Your task to perform on an android device: toggle sleep mode Image 0: 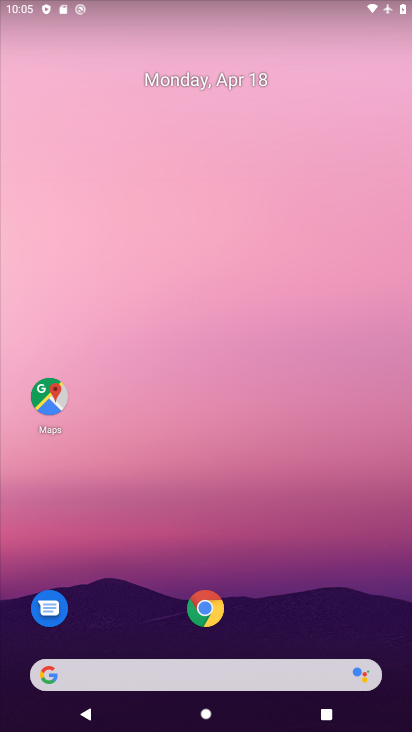
Step 0: drag from (260, 617) to (260, 154)
Your task to perform on an android device: toggle sleep mode Image 1: 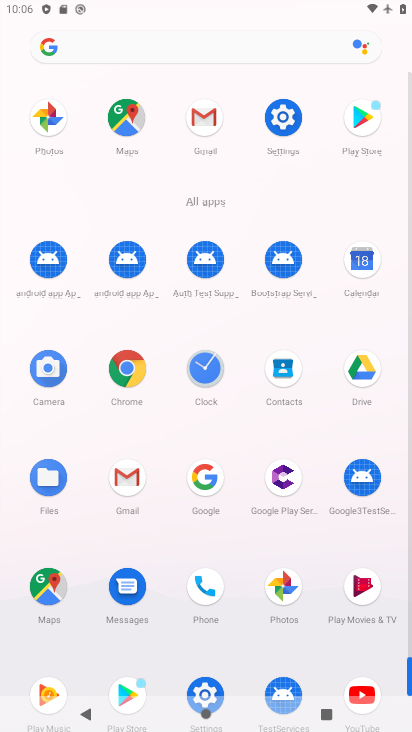
Step 1: click (298, 121)
Your task to perform on an android device: toggle sleep mode Image 2: 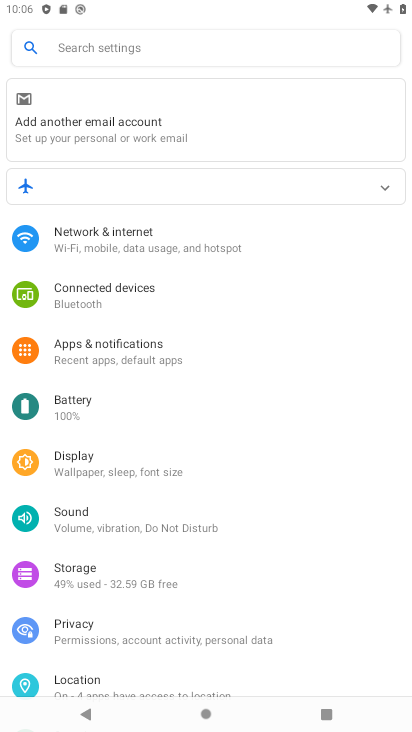
Step 2: click (131, 474)
Your task to perform on an android device: toggle sleep mode Image 3: 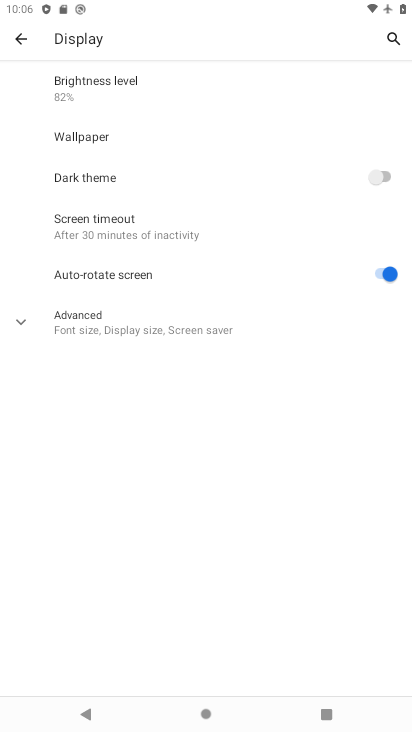
Step 3: click (28, 325)
Your task to perform on an android device: toggle sleep mode Image 4: 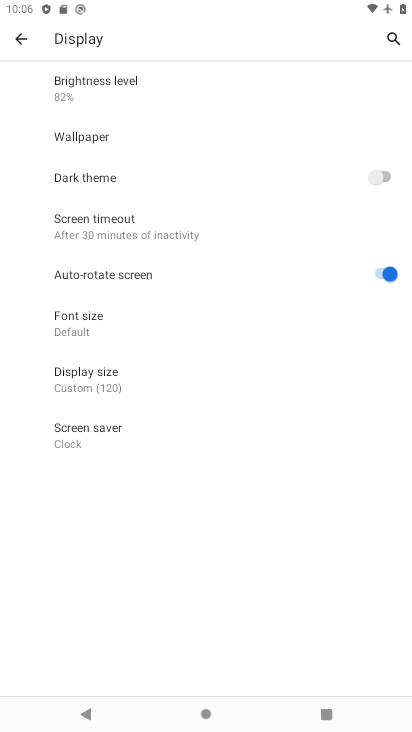
Step 4: task complete